Your task to perform on an android device: Show me popular games on the Play Store Image 0: 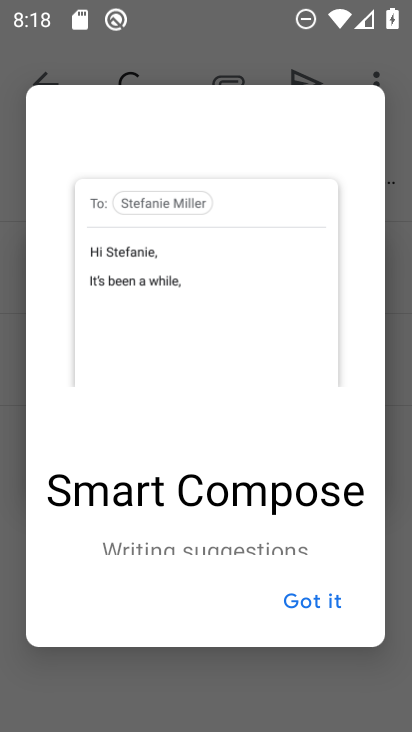
Step 0: press back button
Your task to perform on an android device: Show me popular games on the Play Store Image 1: 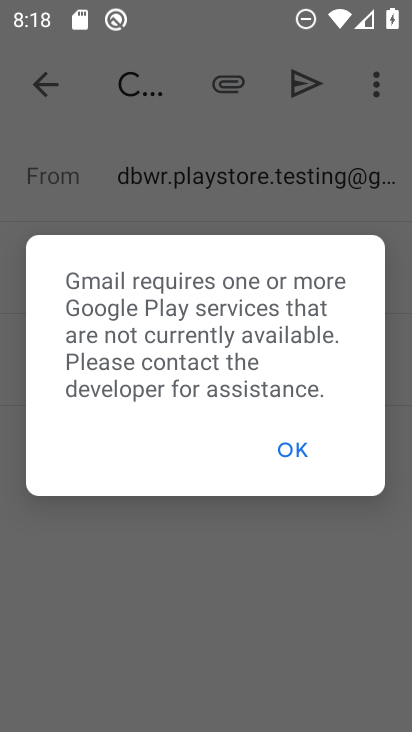
Step 1: press back button
Your task to perform on an android device: Show me popular games on the Play Store Image 2: 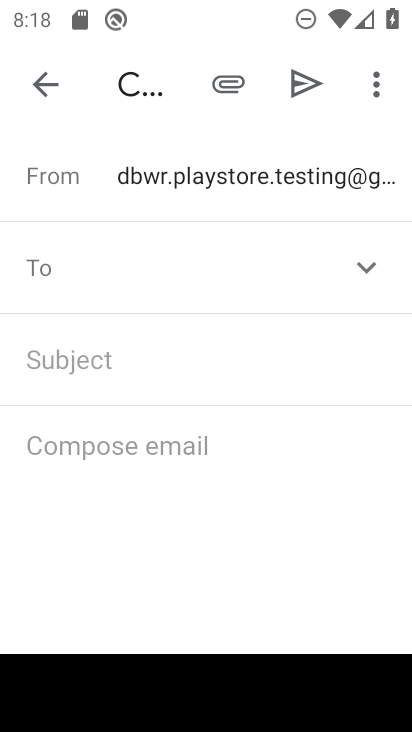
Step 2: press back button
Your task to perform on an android device: Show me popular games on the Play Store Image 3: 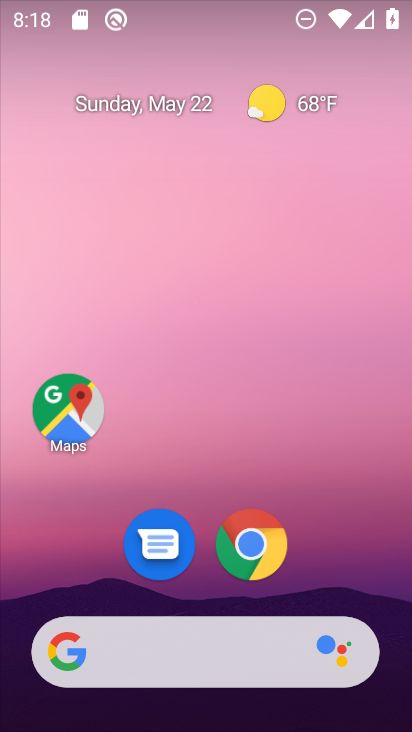
Step 3: drag from (405, 579) to (410, 118)
Your task to perform on an android device: Show me popular games on the Play Store Image 4: 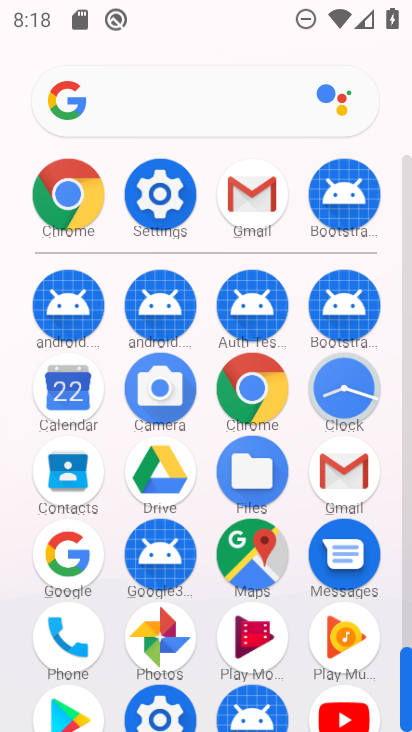
Step 4: drag from (394, 689) to (398, 317)
Your task to perform on an android device: Show me popular games on the Play Store Image 5: 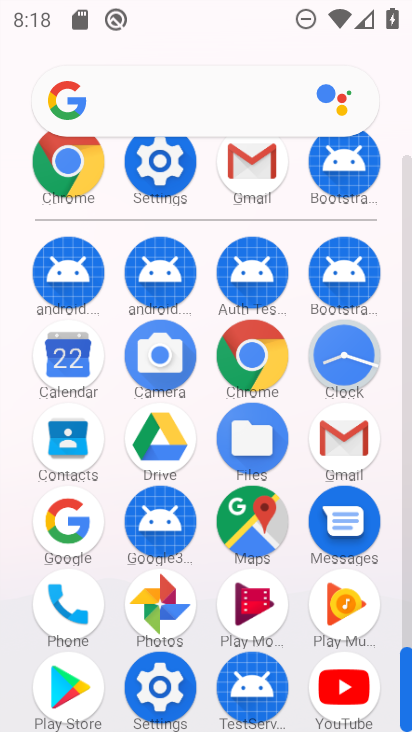
Step 5: click (337, 430)
Your task to perform on an android device: Show me popular games on the Play Store Image 6: 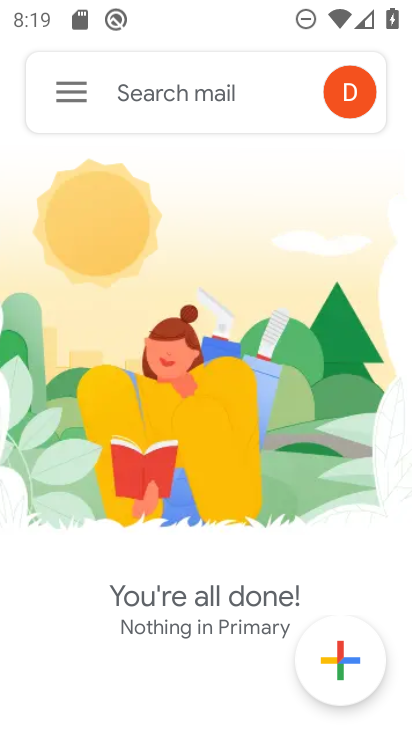
Step 6: press back button
Your task to perform on an android device: Show me popular games on the Play Store Image 7: 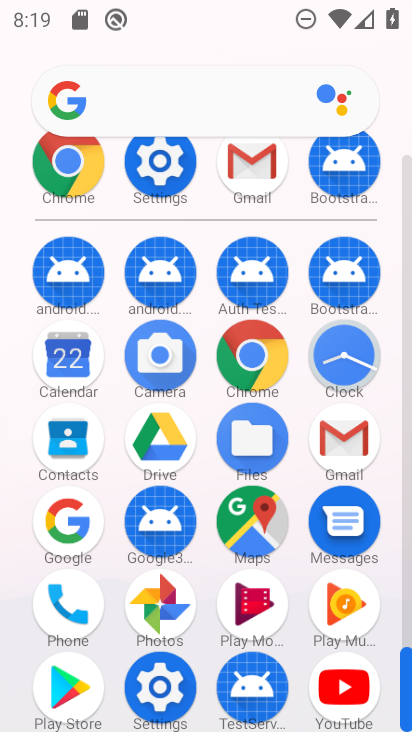
Step 7: click (33, 680)
Your task to perform on an android device: Show me popular games on the Play Store Image 8: 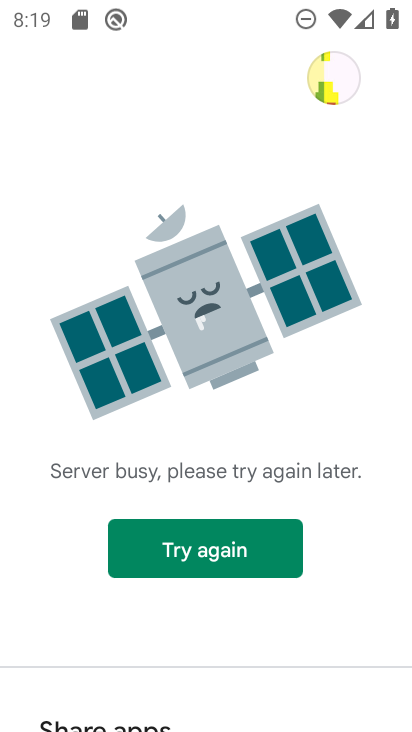
Step 8: task complete